Your task to perform on an android device: Toggle the flashlight Image 0: 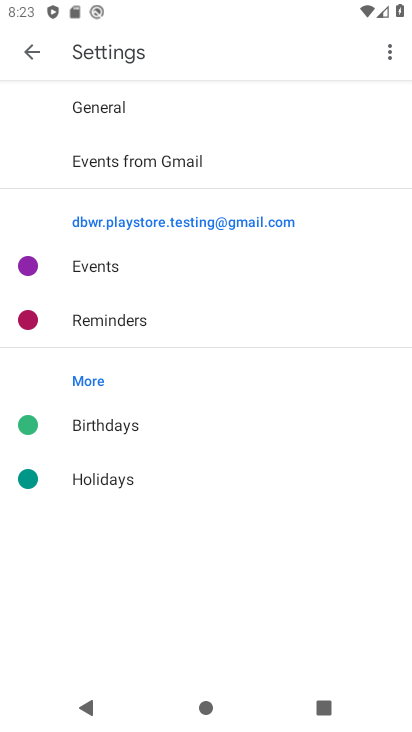
Step 0: press home button
Your task to perform on an android device: Toggle the flashlight Image 1: 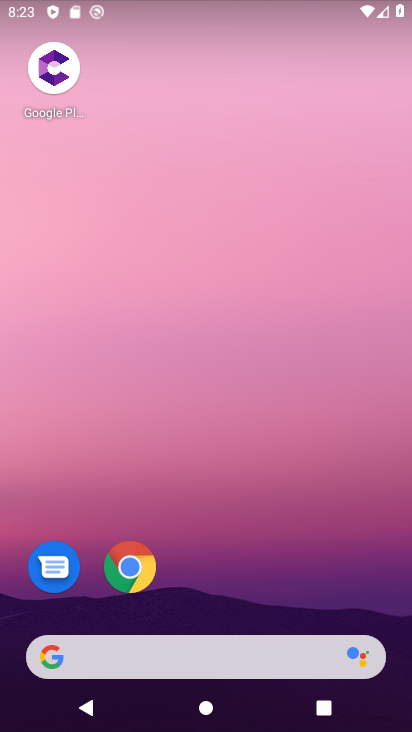
Step 1: task complete